Your task to perform on an android device: Show me recent news Image 0: 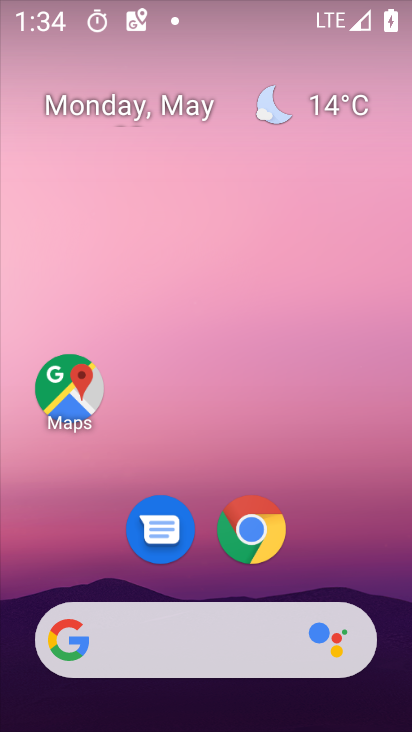
Step 0: drag from (47, 237) to (370, 247)
Your task to perform on an android device: Show me recent news Image 1: 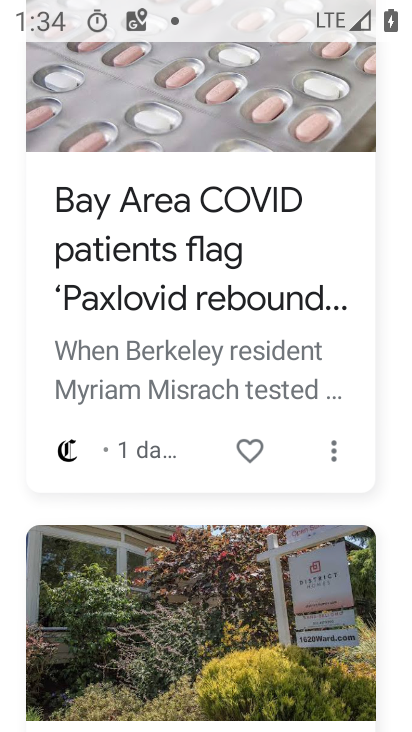
Step 1: task complete